Your task to perform on an android device: Search for the new nike air max shoes on Nike. Image 0: 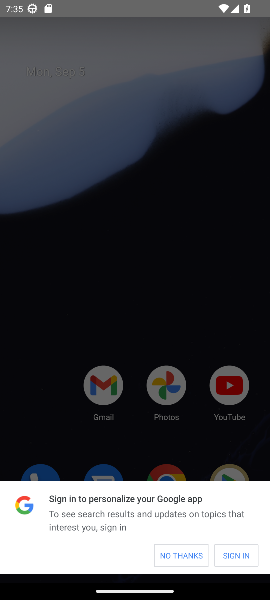
Step 0: click (173, 557)
Your task to perform on an android device: Search for the new nike air max shoes on Nike. Image 1: 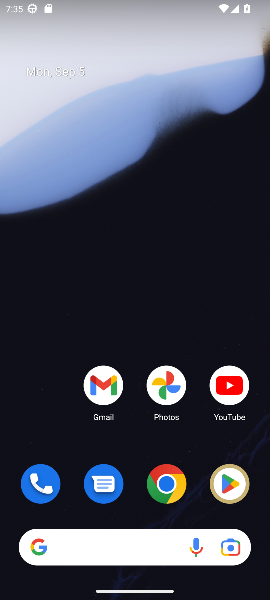
Step 1: click (173, 557)
Your task to perform on an android device: Search for the new nike air max shoes on Nike. Image 2: 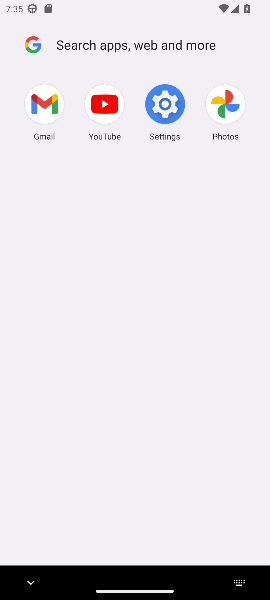
Step 2: press home button
Your task to perform on an android device: Search for the new nike air max shoes on Nike. Image 3: 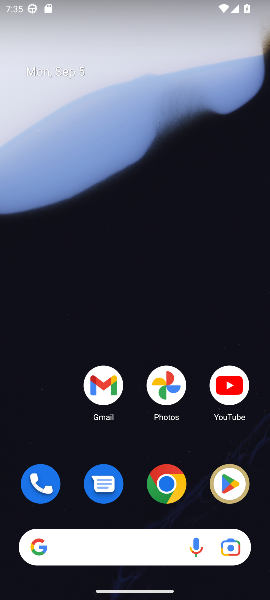
Step 3: drag from (179, 448) to (170, 75)
Your task to perform on an android device: Search for the new nike air max shoes on Nike. Image 4: 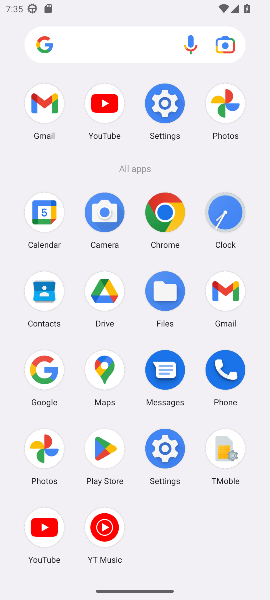
Step 4: click (161, 225)
Your task to perform on an android device: Search for the new nike air max shoes on Nike. Image 5: 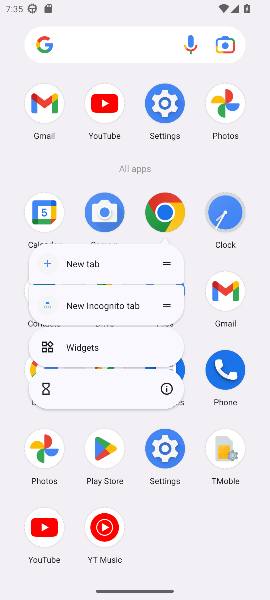
Step 5: click (161, 225)
Your task to perform on an android device: Search for the new nike air max shoes on Nike. Image 6: 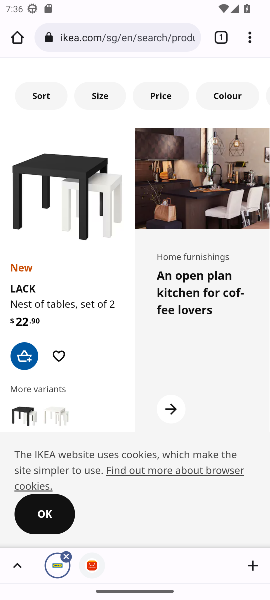
Step 6: drag from (131, 414) to (156, 192)
Your task to perform on an android device: Search for the new nike air max shoes on Nike. Image 7: 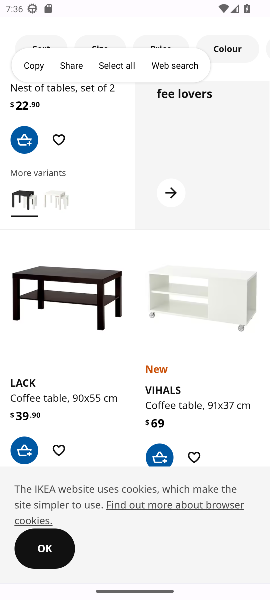
Step 7: drag from (158, 153) to (211, 492)
Your task to perform on an android device: Search for the new nike air max shoes on Nike. Image 8: 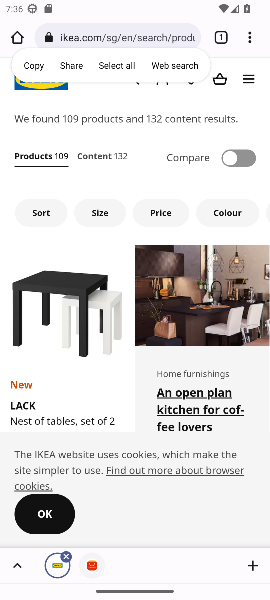
Step 8: drag from (156, 310) to (180, 375)
Your task to perform on an android device: Search for the new nike air max shoes on Nike. Image 9: 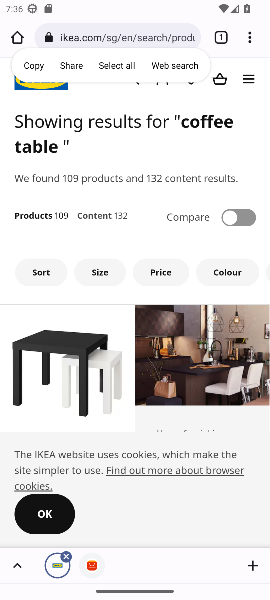
Step 9: drag from (136, 186) to (151, 329)
Your task to perform on an android device: Search for the new nike air max shoes on Nike. Image 10: 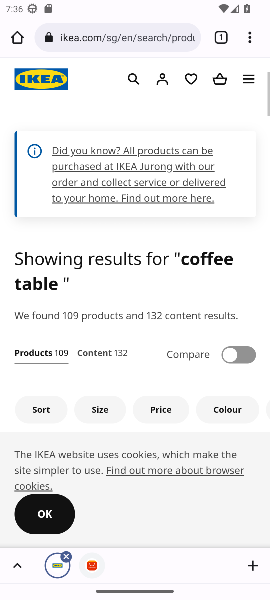
Step 10: click (121, 41)
Your task to perform on an android device: Search for the new nike air max shoes on Nike. Image 11: 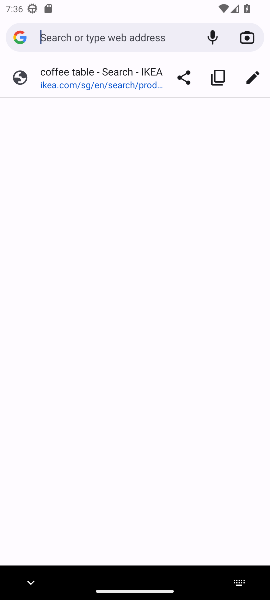
Step 11: type "Nike"
Your task to perform on an android device: Search for the new nike air max shoes on Nike. Image 12: 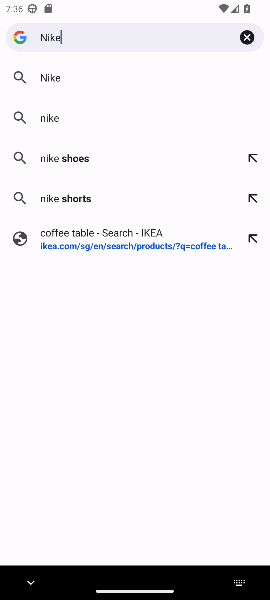
Step 12: press enter
Your task to perform on an android device: Search for the new nike air max shoes on Nike. Image 13: 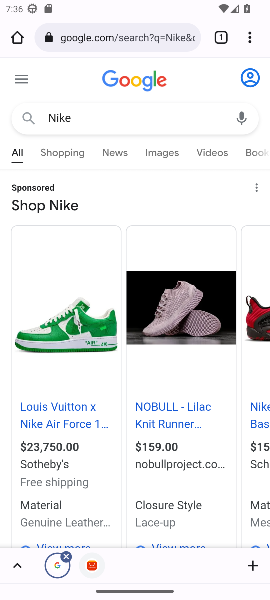
Step 13: drag from (193, 271) to (209, 239)
Your task to perform on an android device: Search for the new nike air max shoes on Nike. Image 14: 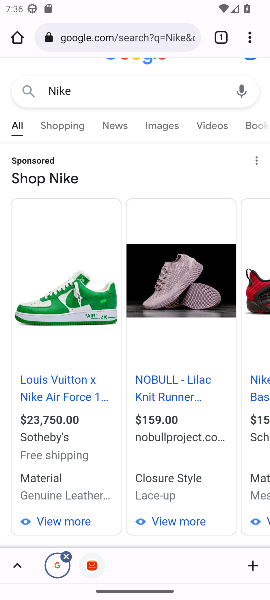
Step 14: drag from (99, 494) to (117, 243)
Your task to perform on an android device: Search for the new nike air max shoes on Nike. Image 15: 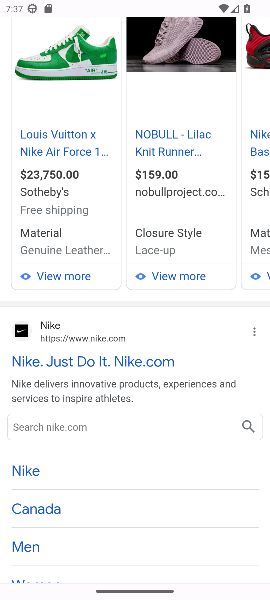
Step 15: drag from (184, 413) to (193, 213)
Your task to perform on an android device: Search for the new nike air max shoes on Nike. Image 16: 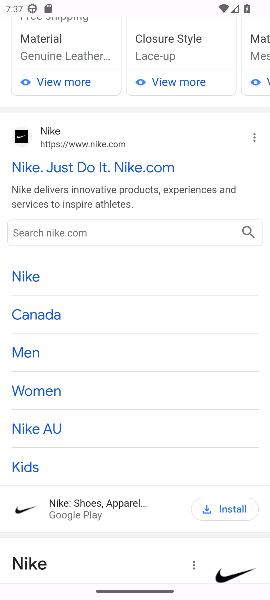
Step 16: drag from (166, 347) to (172, 154)
Your task to perform on an android device: Search for the new nike air max shoes on Nike. Image 17: 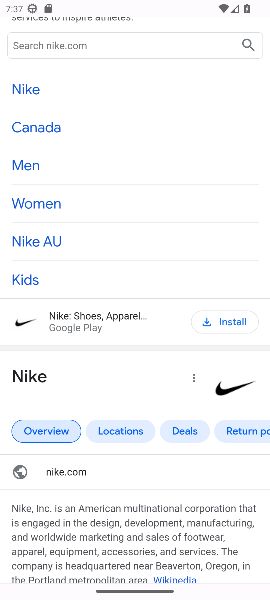
Step 17: drag from (179, 188) to (169, 519)
Your task to perform on an android device: Search for the new nike air max shoes on Nike. Image 18: 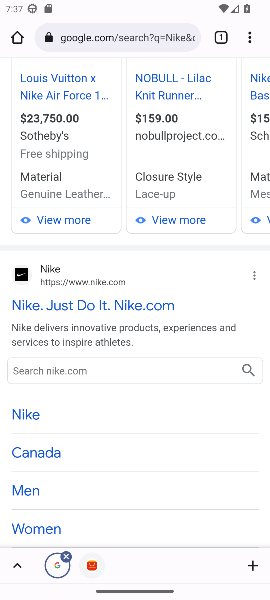
Step 18: drag from (209, 254) to (188, 503)
Your task to perform on an android device: Search for the new nike air max shoes on Nike. Image 19: 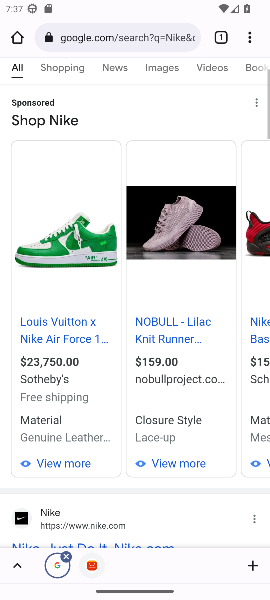
Step 19: click (216, 547)
Your task to perform on an android device: Search for the new nike air max shoes on Nike. Image 20: 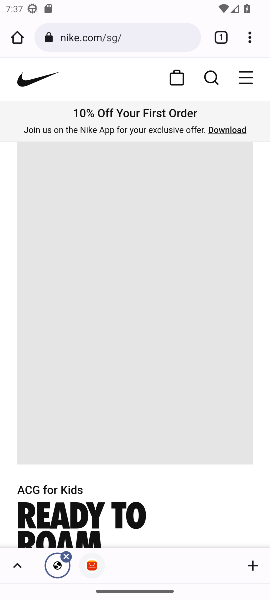
Step 20: drag from (149, 278) to (182, 455)
Your task to perform on an android device: Search for the new nike air max shoes on Nike. Image 21: 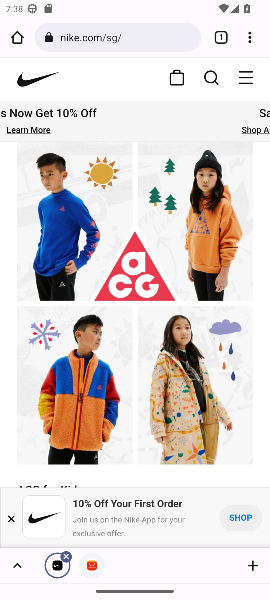
Step 21: click (137, 37)
Your task to perform on an android device: Search for the new nike air max shoes on Nike. Image 22: 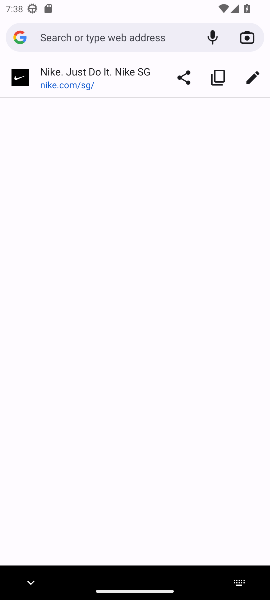
Step 22: click (27, 70)
Your task to perform on an android device: Search for the new nike air max shoes on Nike. Image 23: 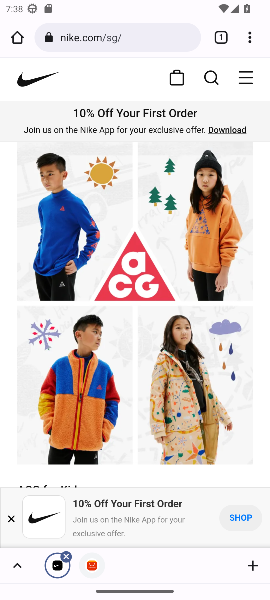
Step 23: click (214, 80)
Your task to perform on an android device: Search for the new nike air max shoes on Nike. Image 24: 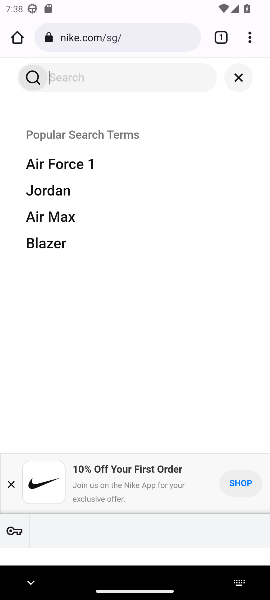
Step 24: type "new nike air max shoes"
Your task to perform on an android device: Search for the new nike air max shoes on Nike. Image 25: 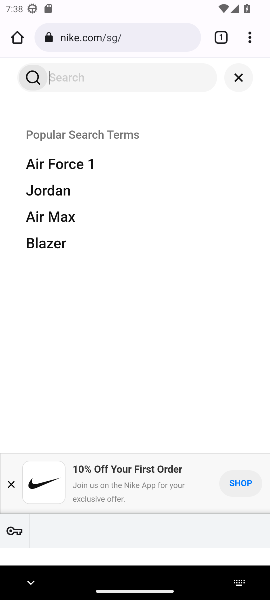
Step 25: press enter
Your task to perform on an android device: Search for the new nike air max shoes on Nike. Image 26: 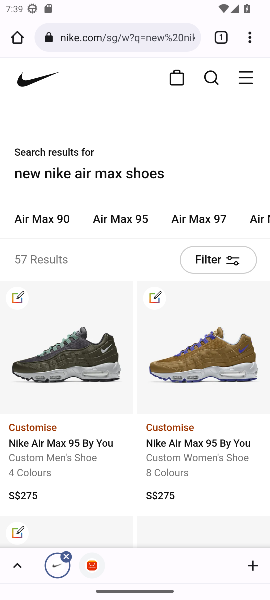
Step 26: task complete